Your task to perform on an android device: What's the weather today? Image 0: 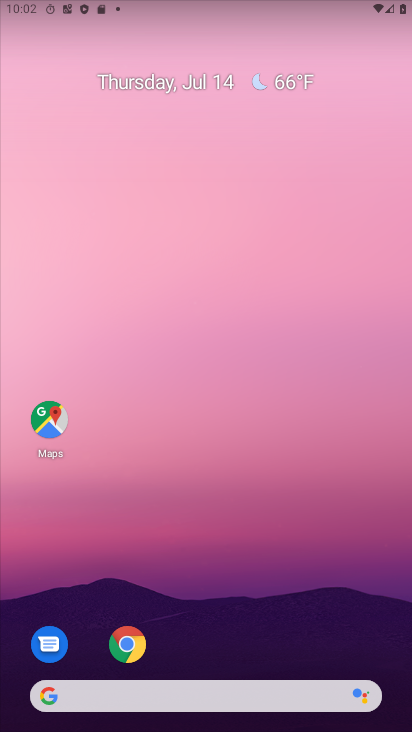
Step 0: click (408, 414)
Your task to perform on an android device: What's the weather today? Image 1: 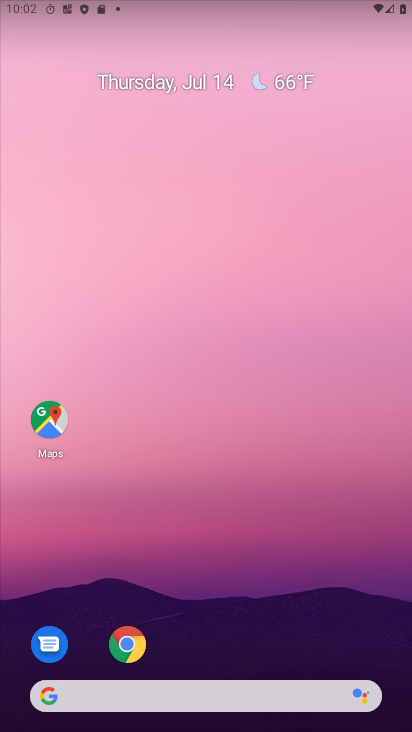
Step 1: drag from (245, 636) to (210, 171)
Your task to perform on an android device: What's the weather today? Image 2: 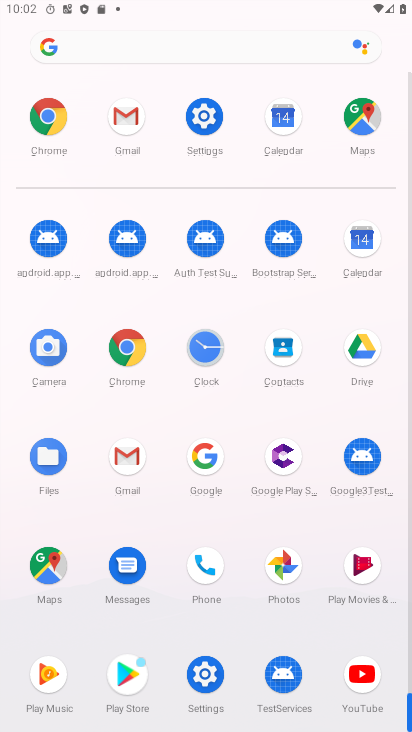
Step 2: click (40, 110)
Your task to perform on an android device: What's the weather today? Image 3: 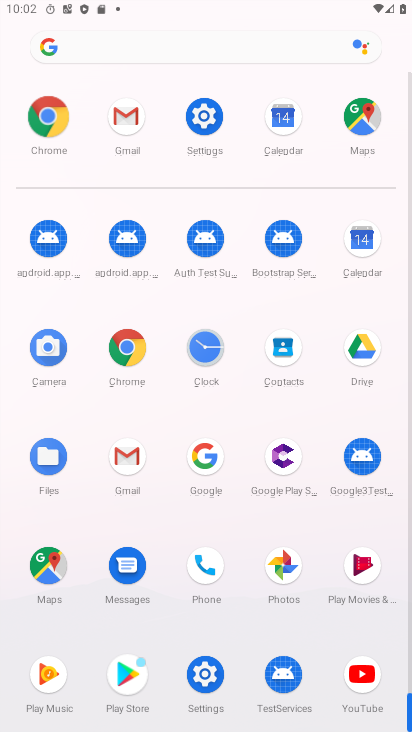
Step 3: click (39, 110)
Your task to perform on an android device: What's the weather today? Image 4: 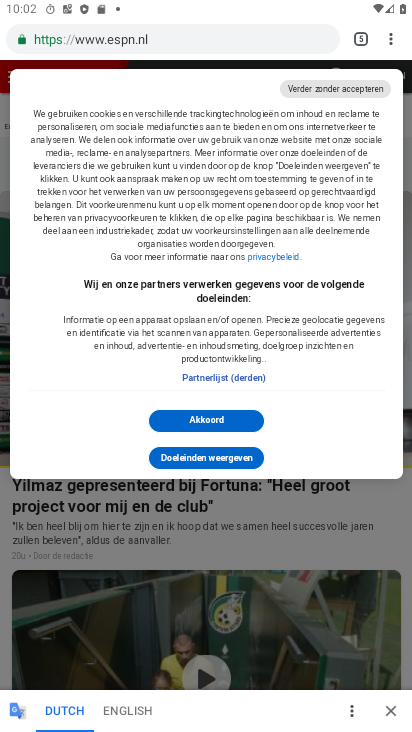
Step 4: drag from (392, 32) to (235, 84)
Your task to perform on an android device: What's the weather today? Image 5: 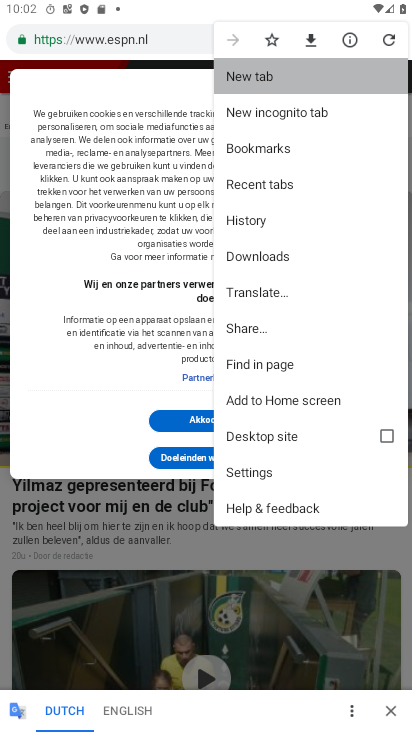
Step 5: click (235, 85)
Your task to perform on an android device: What's the weather today? Image 6: 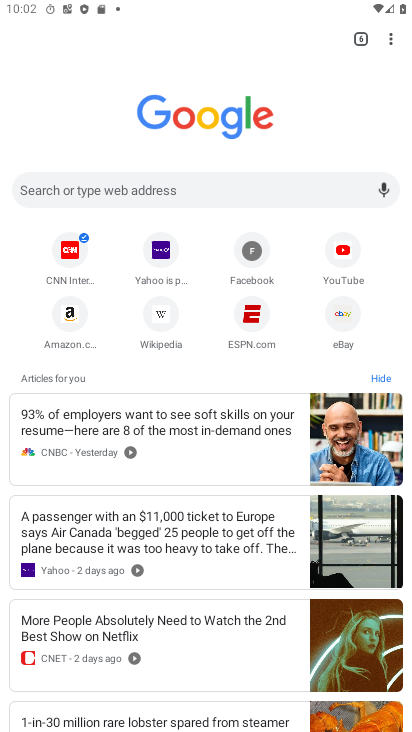
Step 6: click (65, 179)
Your task to perform on an android device: What's the weather today? Image 7: 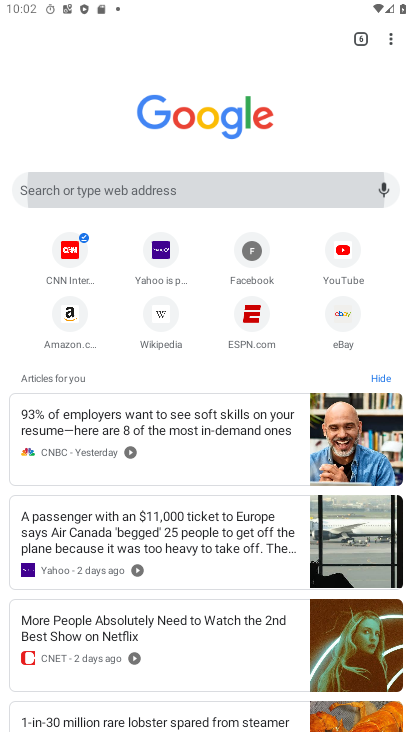
Step 7: click (74, 170)
Your task to perform on an android device: What's the weather today? Image 8: 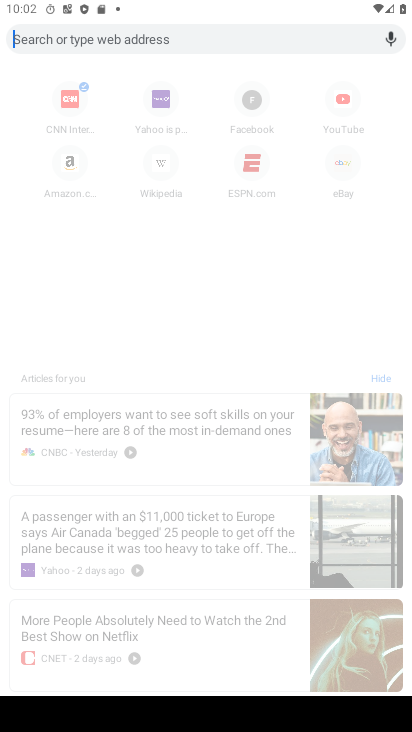
Step 8: type "weather today?"
Your task to perform on an android device: What's the weather today? Image 9: 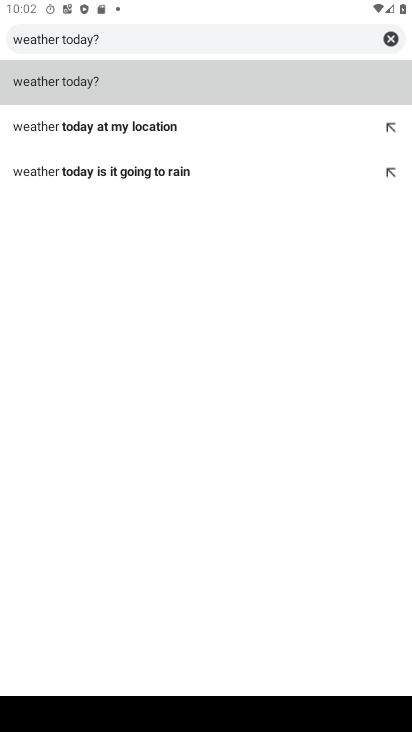
Step 9: click (72, 92)
Your task to perform on an android device: What's the weather today? Image 10: 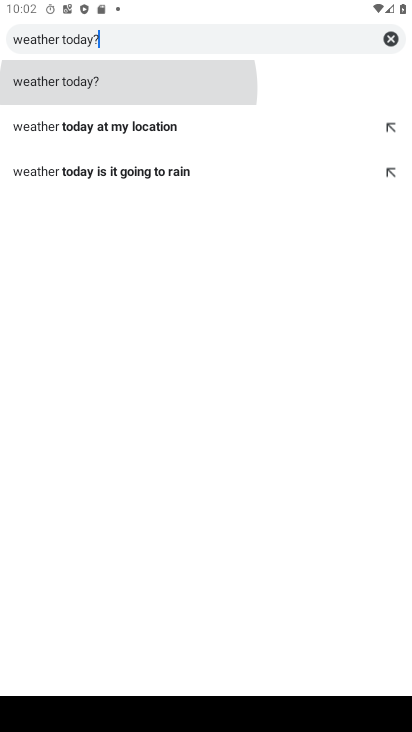
Step 10: click (81, 75)
Your task to perform on an android device: What's the weather today? Image 11: 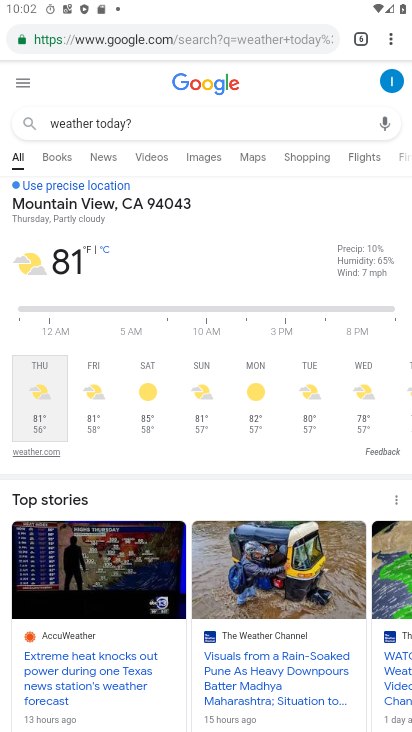
Step 11: task complete